Your task to perform on an android device: move an email to a new category in the gmail app Image 0: 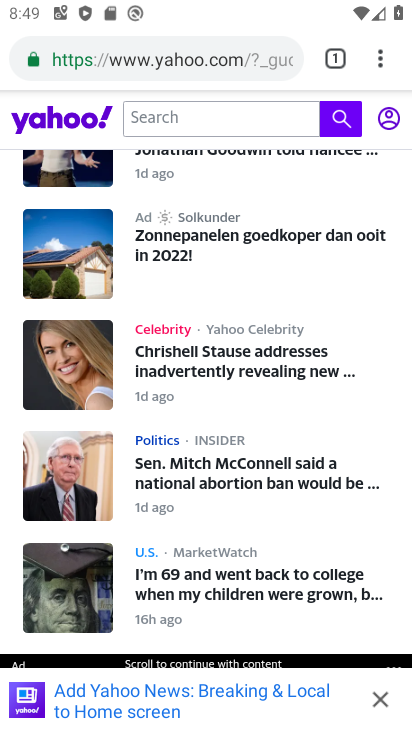
Step 0: press home button
Your task to perform on an android device: move an email to a new category in the gmail app Image 1: 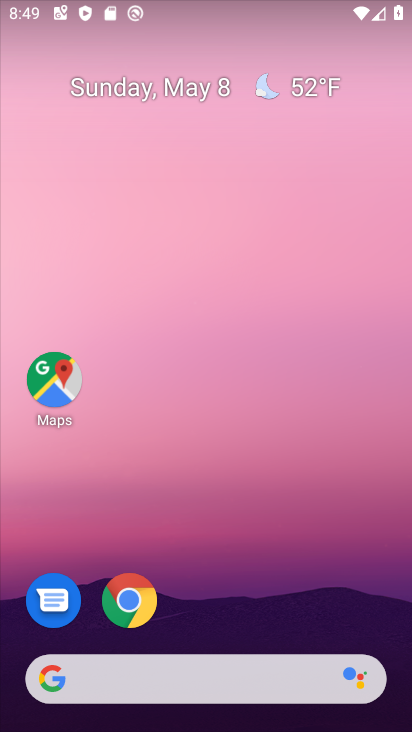
Step 1: drag from (212, 651) to (401, 612)
Your task to perform on an android device: move an email to a new category in the gmail app Image 2: 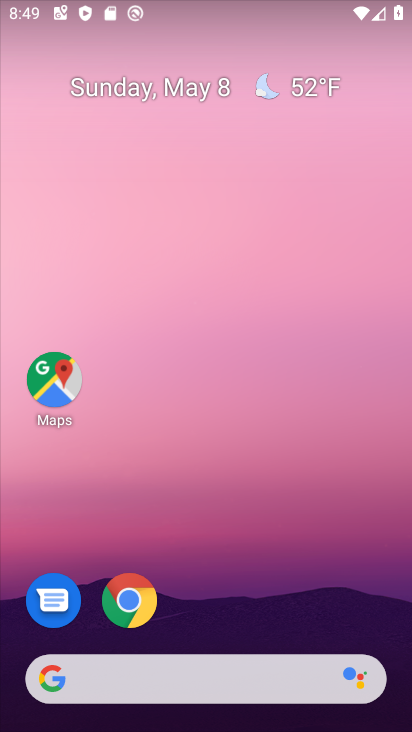
Step 2: drag from (203, 662) to (161, 14)
Your task to perform on an android device: move an email to a new category in the gmail app Image 3: 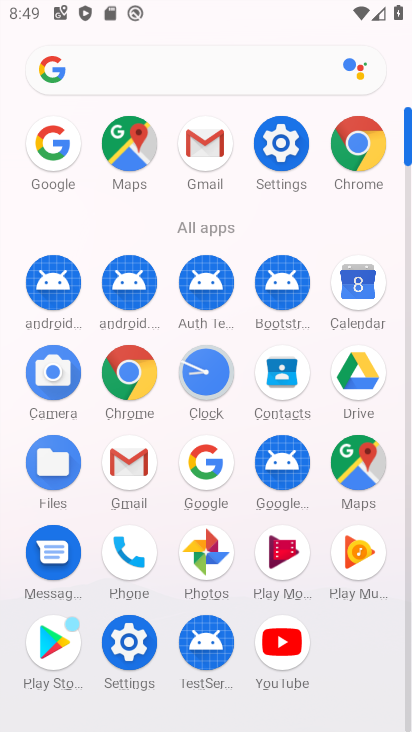
Step 3: click (121, 467)
Your task to perform on an android device: move an email to a new category in the gmail app Image 4: 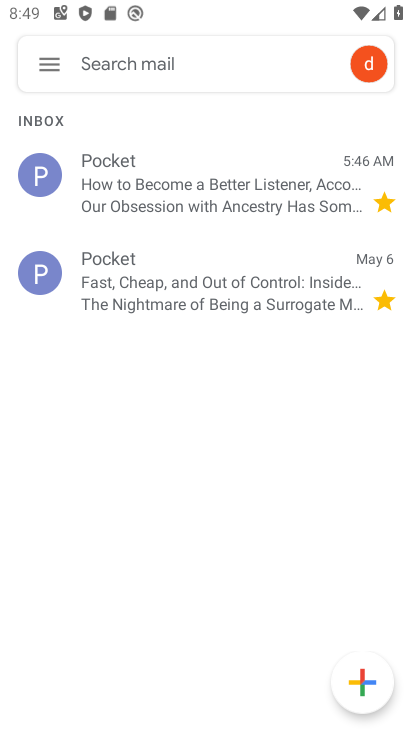
Step 4: click (57, 60)
Your task to perform on an android device: move an email to a new category in the gmail app Image 5: 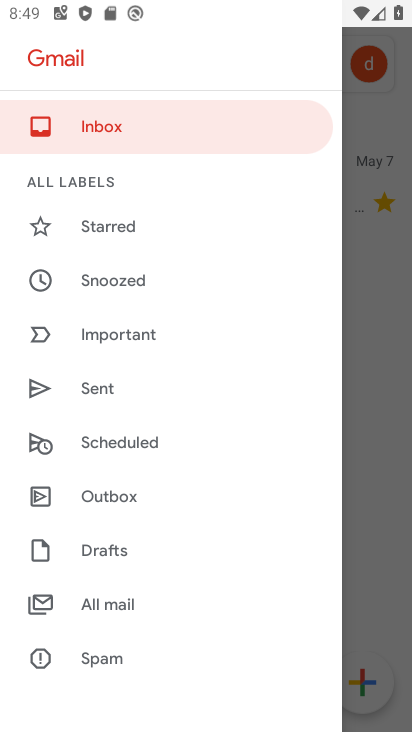
Step 5: click (254, 144)
Your task to perform on an android device: move an email to a new category in the gmail app Image 6: 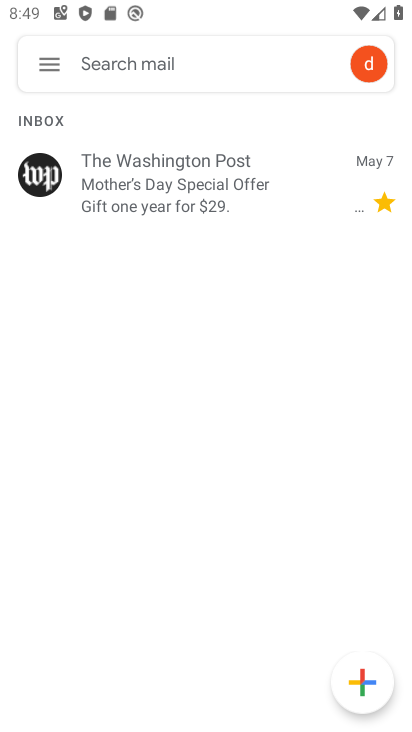
Step 6: click (204, 182)
Your task to perform on an android device: move an email to a new category in the gmail app Image 7: 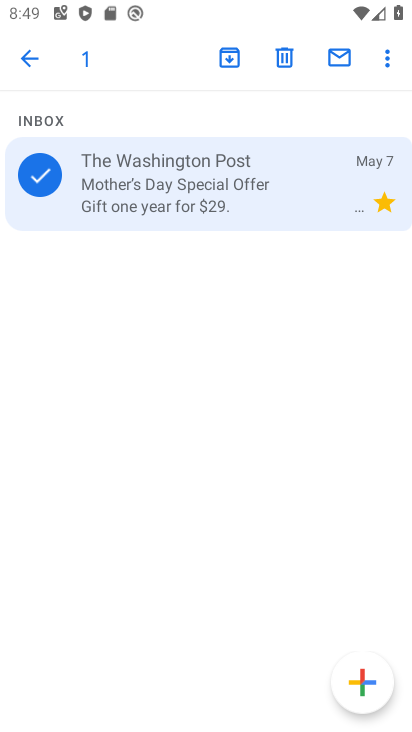
Step 7: click (387, 76)
Your task to perform on an android device: move an email to a new category in the gmail app Image 8: 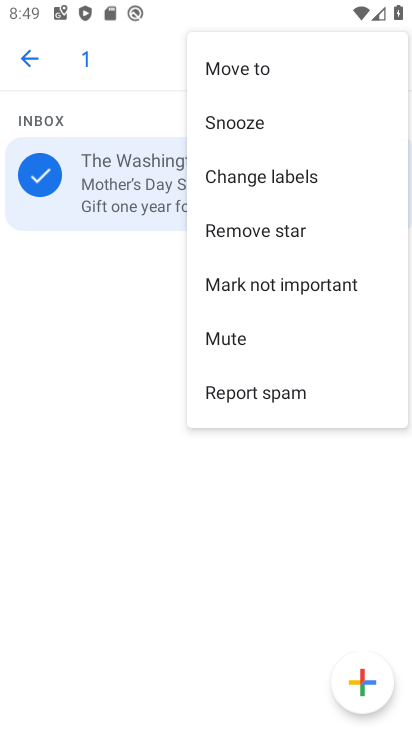
Step 8: click (255, 61)
Your task to perform on an android device: move an email to a new category in the gmail app Image 9: 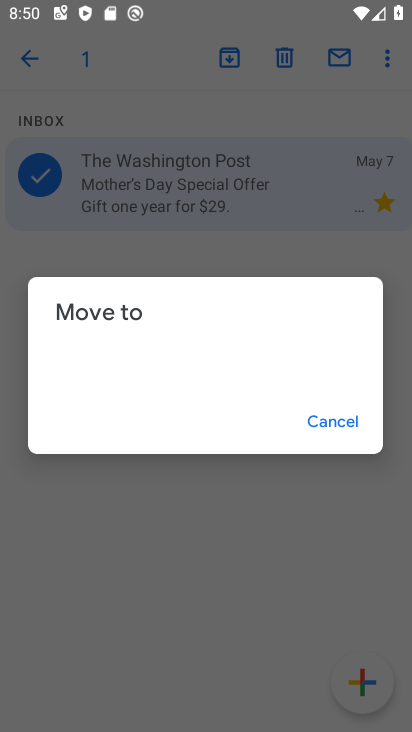
Step 9: click (348, 417)
Your task to perform on an android device: move an email to a new category in the gmail app Image 10: 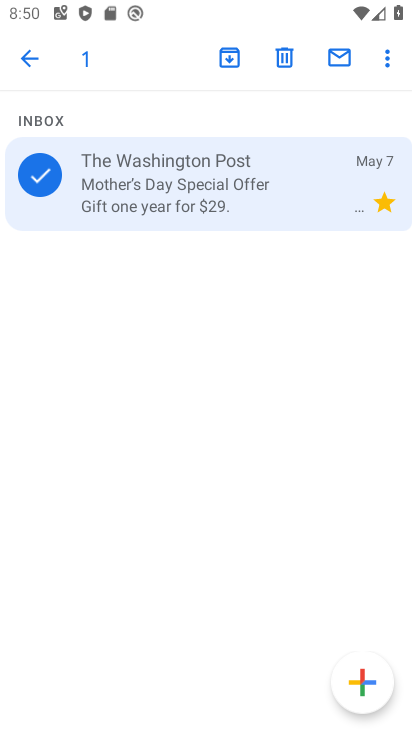
Step 10: task complete